Your task to perform on an android device: choose inbox layout in the gmail app Image 0: 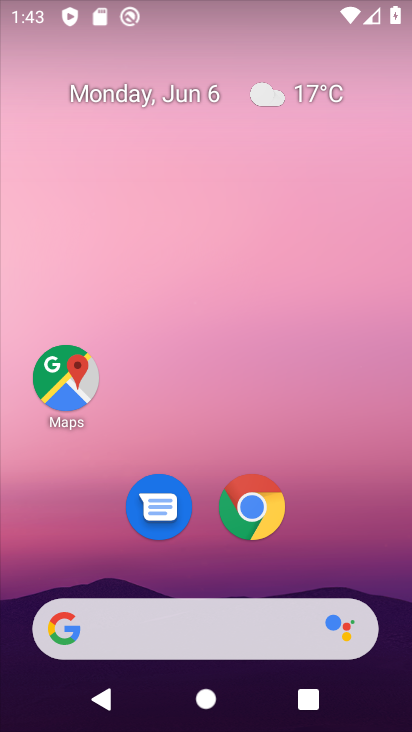
Step 0: drag from (384, 642) to (298, 156)
Your task to perform on an android device: choose inbox layout in the gmail app Image 1: 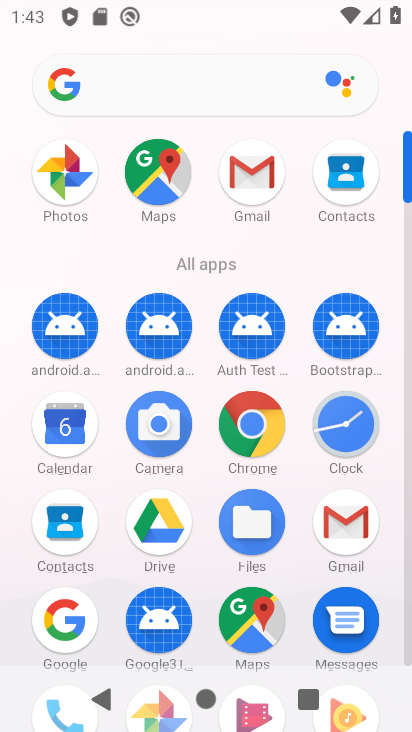
Step 1: click (253, 181)
Your task to perform on an android device: choose inbox layout in the gmail app Image 2: 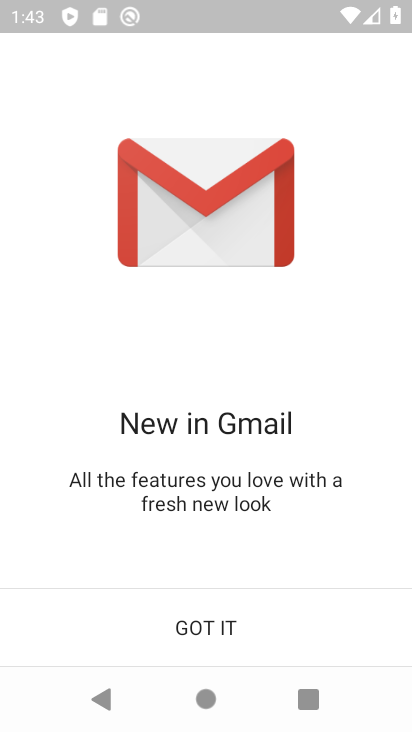
Step 2: click (209, 614)
Your task to perform on an android device: choose inbox layout in the gmail app Image 3: 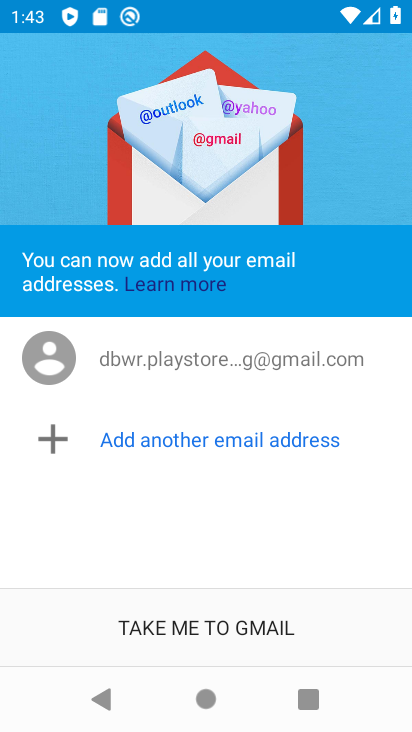
Step 3: click (211, 615)
Your task to perform on an android device: choose inbox layout in the gmail app Image 4: 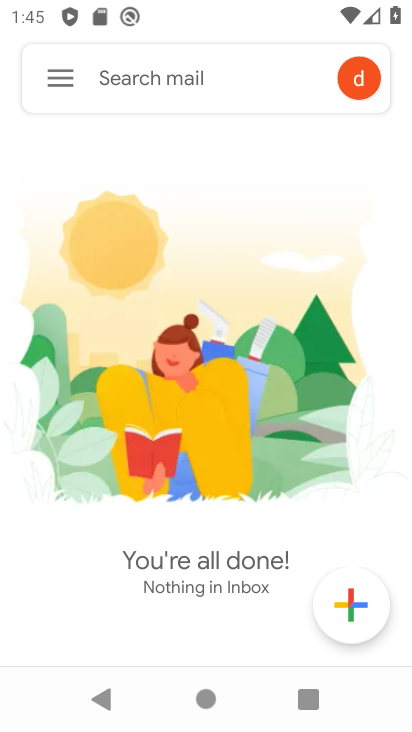
Step 4: click (57, 83)
Your task to perform on an android device: choose inbox layout in the gmail app Image 5: 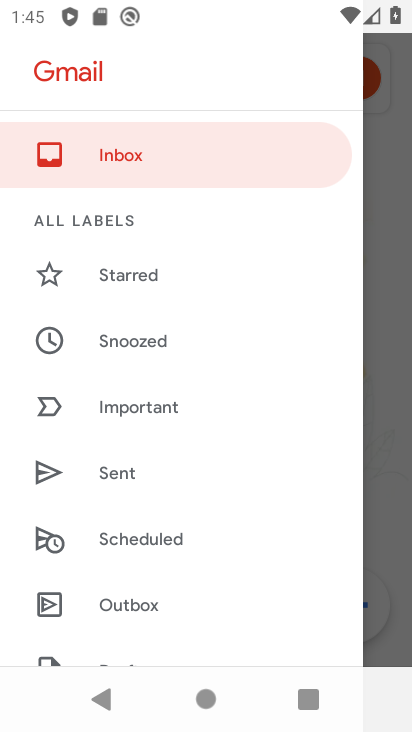
Step 5: click (134, 154)
Your task to perform on an android device: choose inbox layout in the gmail app Image 6: 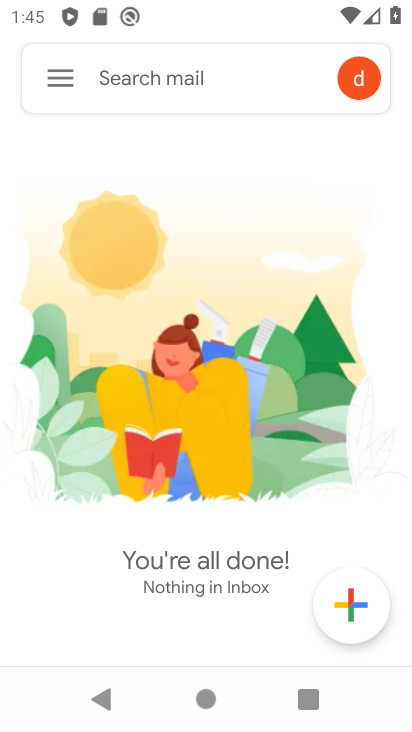
Step 6: task complete